Your task to perform on an android device: turn off notifications settings in the gmail app Image 0: 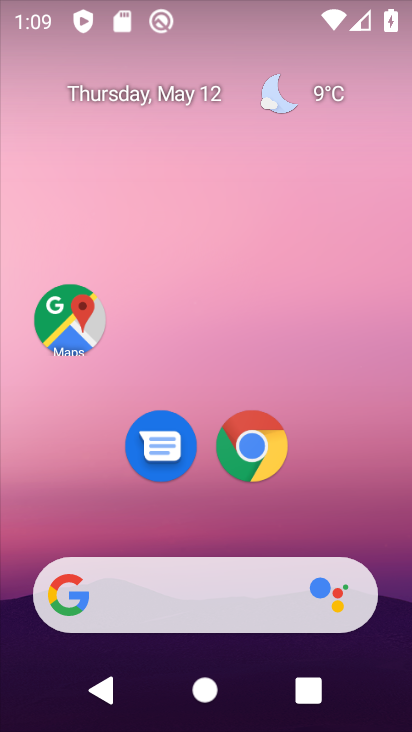
Step 0: drag from (92, 558) to (227, 114)
Your task to perform on an android device: turn off notifications settings in the gmail app Image 1: 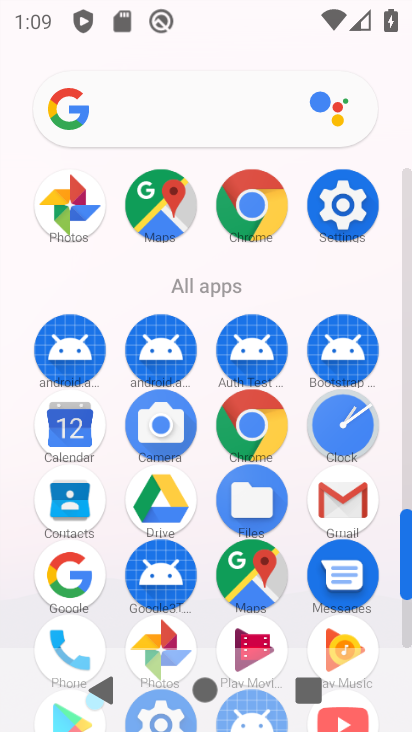
Step 1: click (346, 495)
Your task to perform on an android device: turn off notifications settings in the gmail app Image 2: 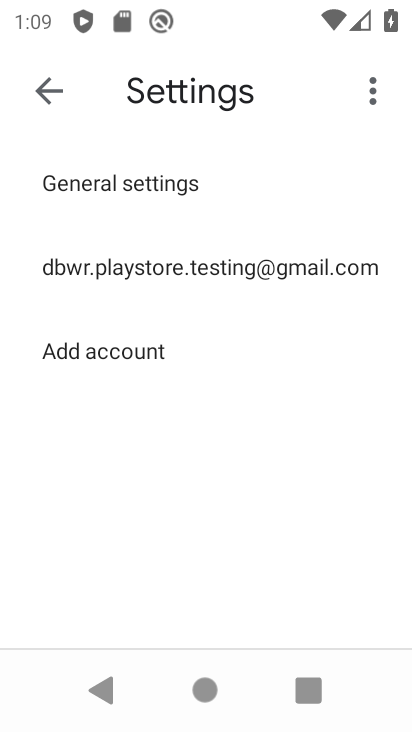
Step 2: click (242, 273)
Your task to perform on an android device: turn off notifications settings in the gmail app Image 3: 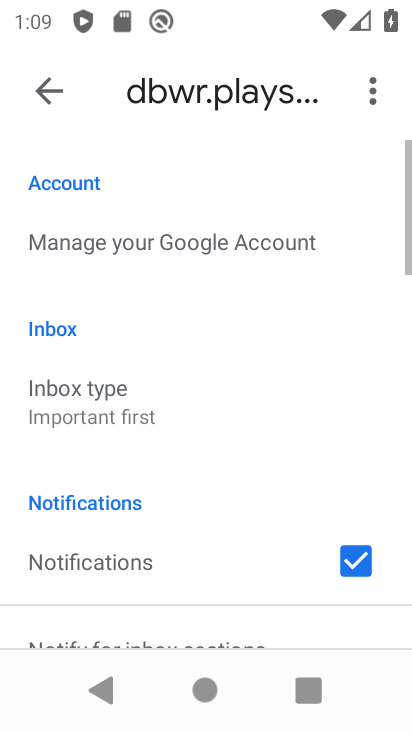
Step 3: drag from (170, 605) to (267, 225)
Your task to perform on an android device: turn off notifications settings in the gmail app Image 4: 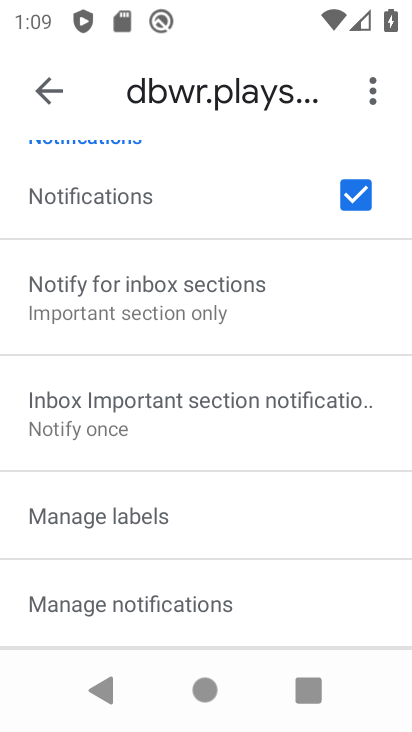
Step 4: click (160, 595)
Your task to perform on an android device: turn off notifications settings in the gmail app Image 5: 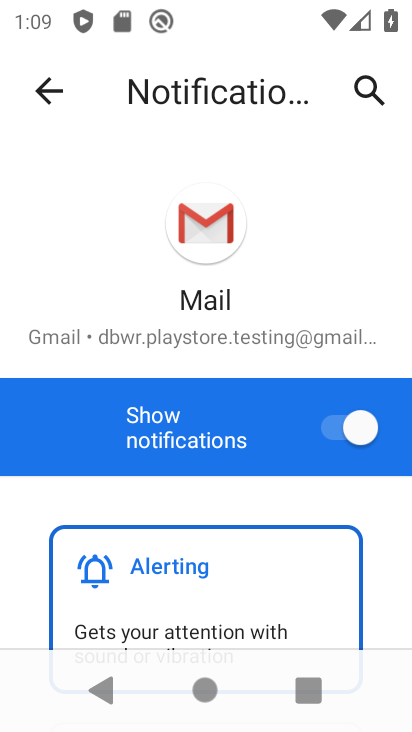
Step 5: click (324, 435)
Your task to perform on an android device: turn off notifications settings in the gmail app Image 6: 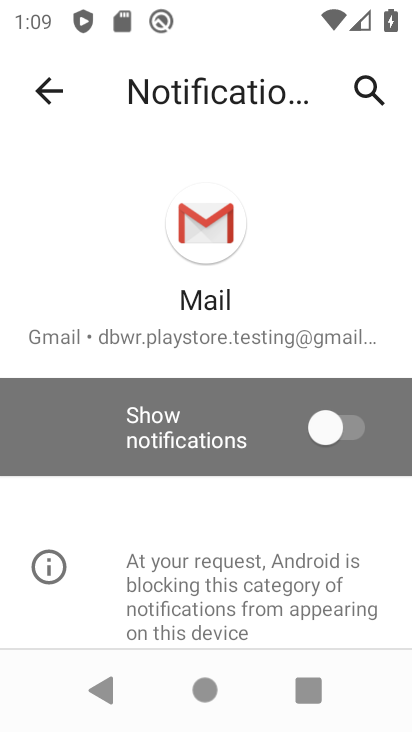
Step 6: task complete